Your task to perform on an android device: Go to ESPN.com Image 0: 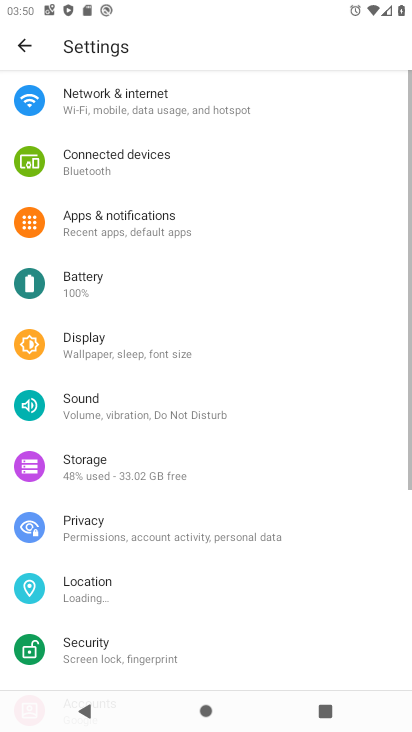
Step 0: press home button
Your task to perform on an android device: Go to ESPN.com Image 1: 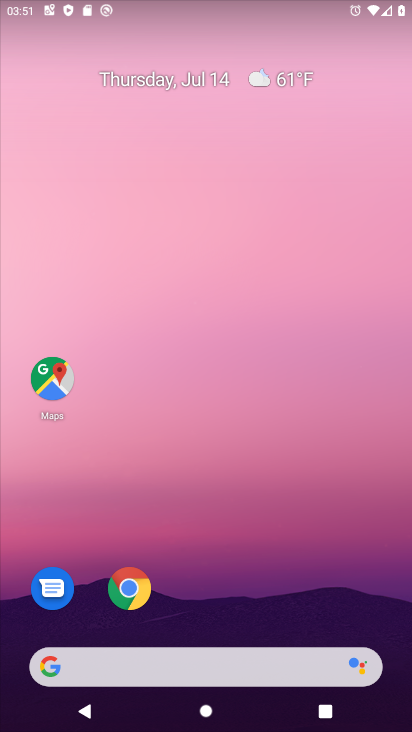
Step 1: click (46, 662)
Your task to perform on an android device: Go to ESPN.com Image 2: 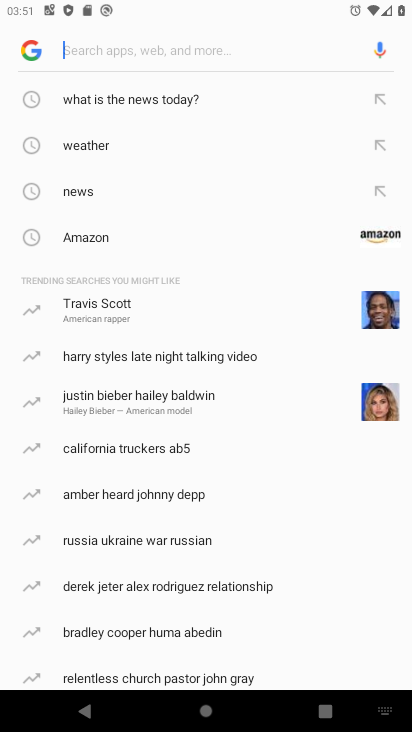
Step 2: type "ESPN.com"
Your task to perform on an android device: Go to ESPN.com Image 3: 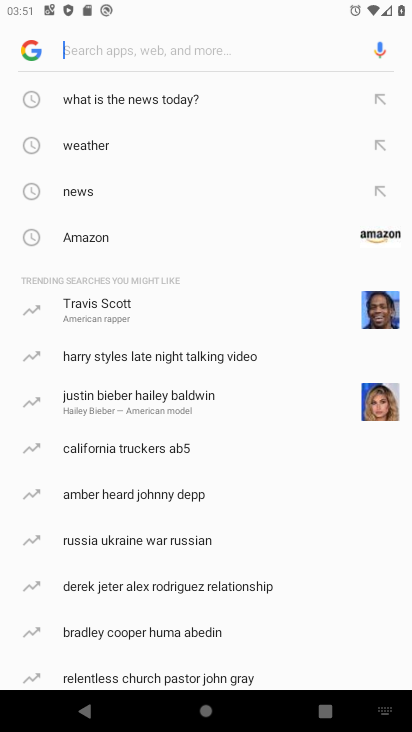
Step 3: click (75, 45)
Your task to perform on an android device: Go to ESPN.com Image 4: 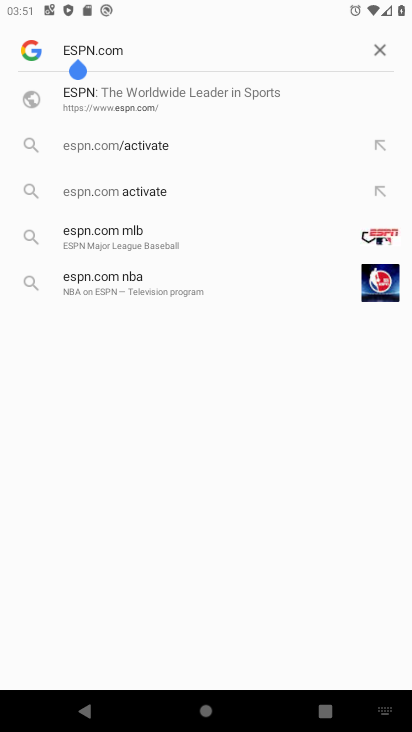
Step 4: click (91, 103)
Your task to perform on an android device: Go to ESPN.com Image 5: 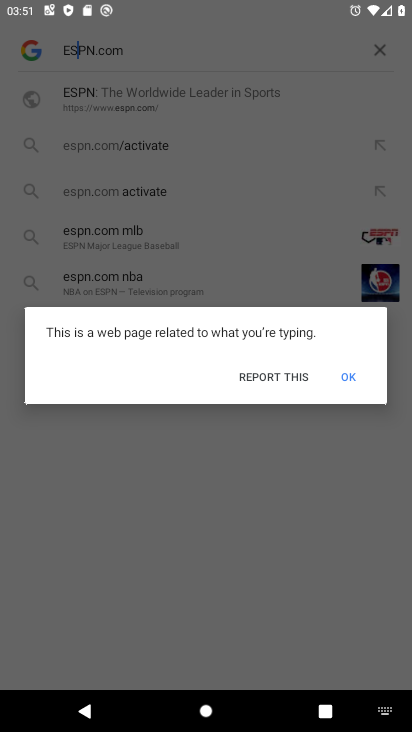
Step 5: click (346, 366)
Your task to perform on an android device: Go to ESPN.com Image 6: 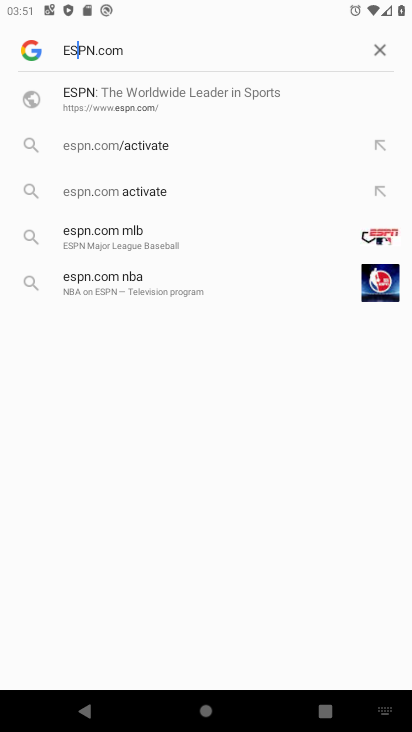
Step 6: press enter
Your task to perform on an android device: Go to ESPN.com Image 7: 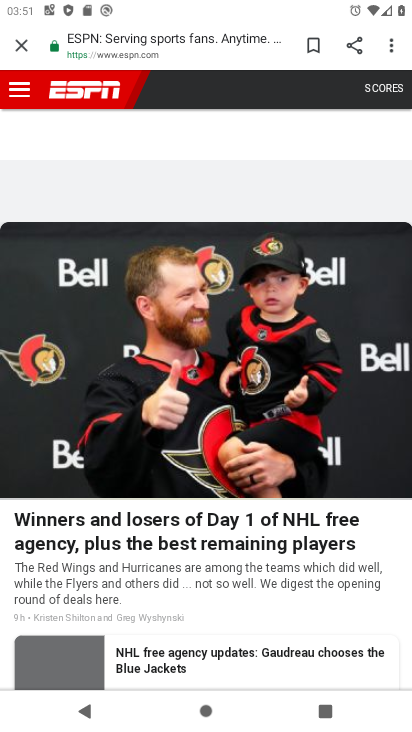
Step 7: task complete